Your task to perform on an android device: stop showing notifications on the lock screen Image 0: 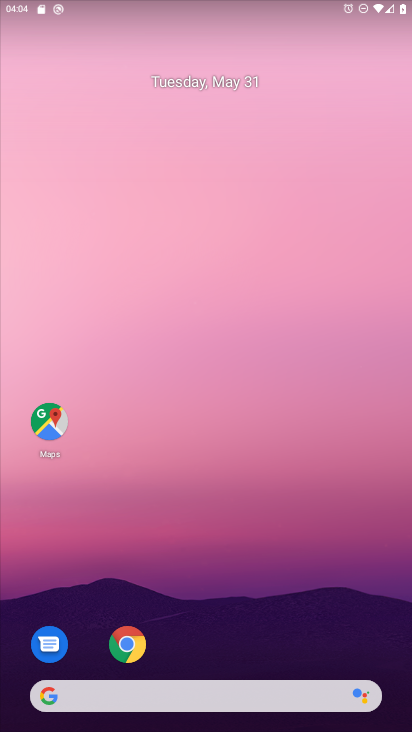
Step 0: drag from (291, 531) to (248, 117)
Your task to perform on an android device: stop showing notifications on the lock screen Image 1: 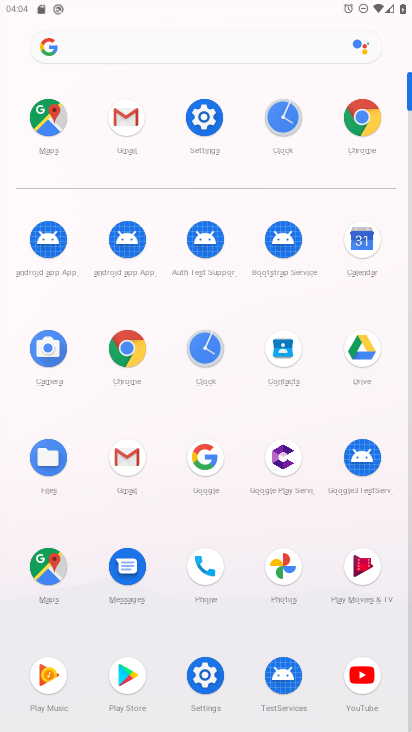
Step 1: click (203, 118)
Your task to perform on an android device: stop showing notifications on the lock screen Image 2: 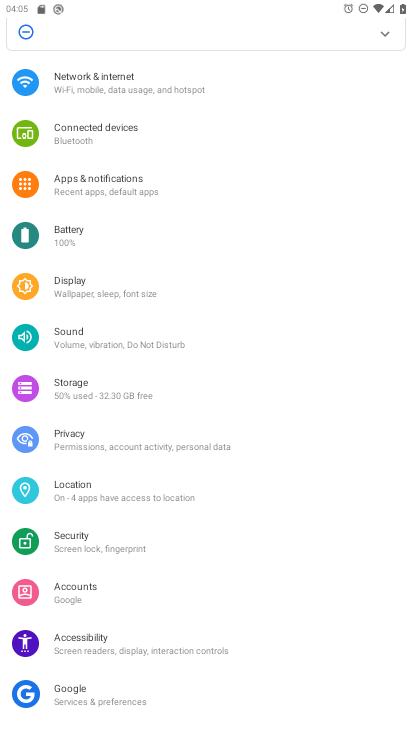
Step 2: drag from (180, 229) to (199, 518)
Your task to perform on an android device: stop showing notifications on the lock screen Image 3: 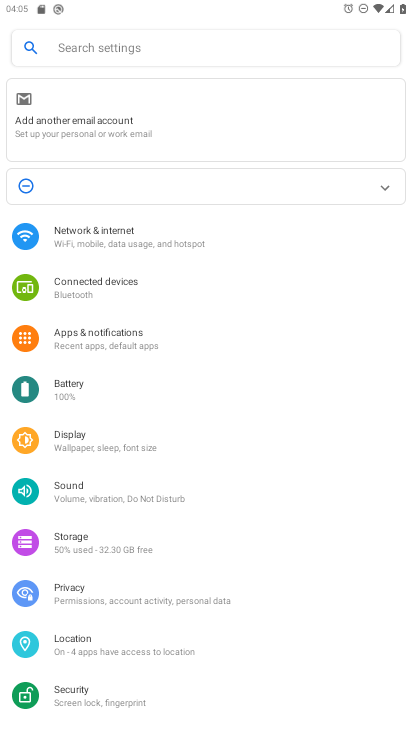
Step 3: click (107, 336)
Your task to perform on an android device: stop showing notifications on the lock screen Image 4: 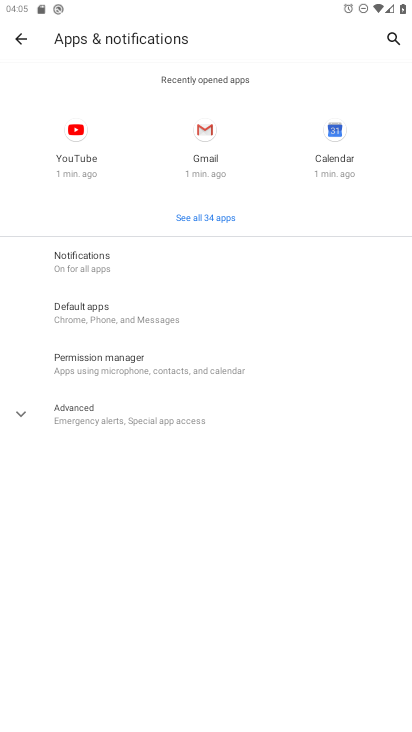
Step 4: click (104, 266)
Your task to perform on an android device: stop showing notifications on the lock screen Image 5: 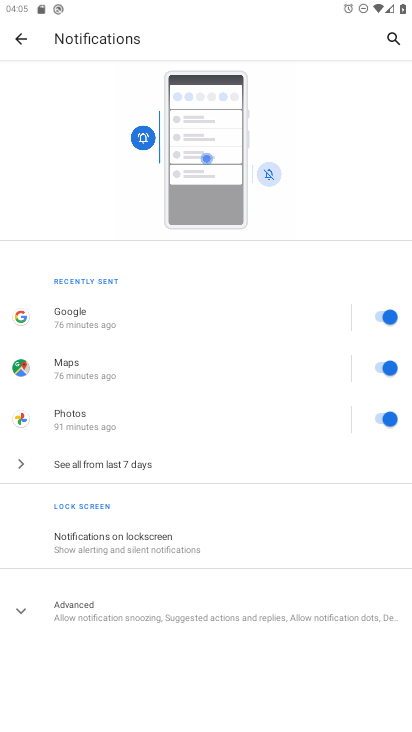
Step 5: click (128, 534)
Your task to perform on an android device: stop showing notifications on the lock screen Image 6: 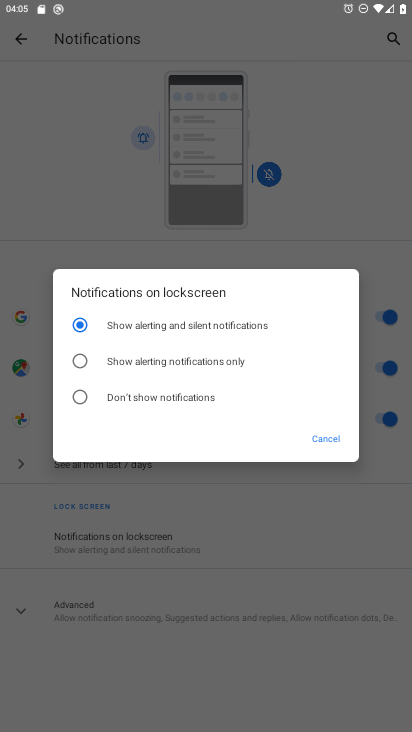
Step 6: click (148, 364)
Your task to perform on an android device: stop showing notifications on the lock screen Image 7: 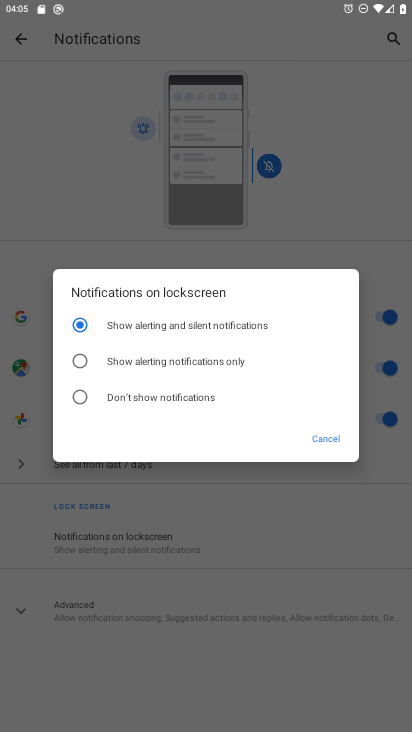
Step 7: click (146, 392)
Your task to perform on an android device: stop showing notifications on the lock screen Image 8: 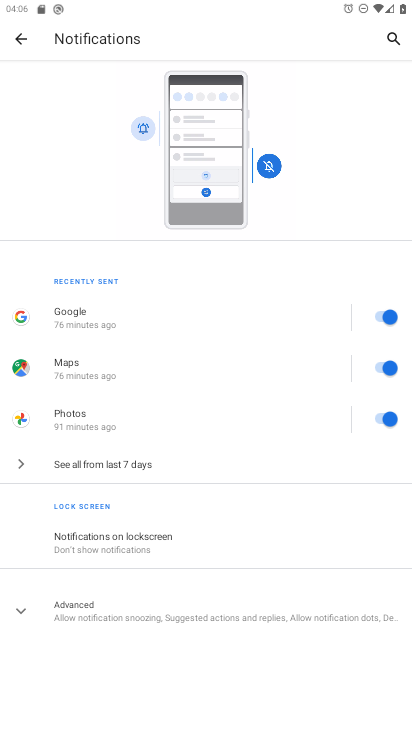
Step 8: task complete